Your task to perform on an android device: Go to calendar. Show me events next week Image 0: 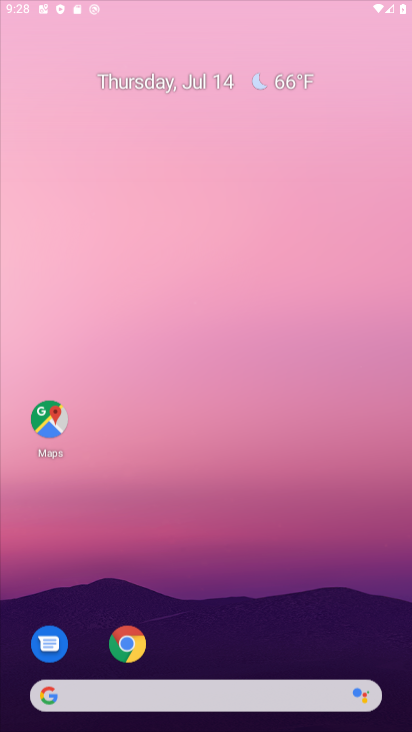
Step 0: press back button
Your task to perform on an android device: Go to calendar. Show me events next week Image 1: 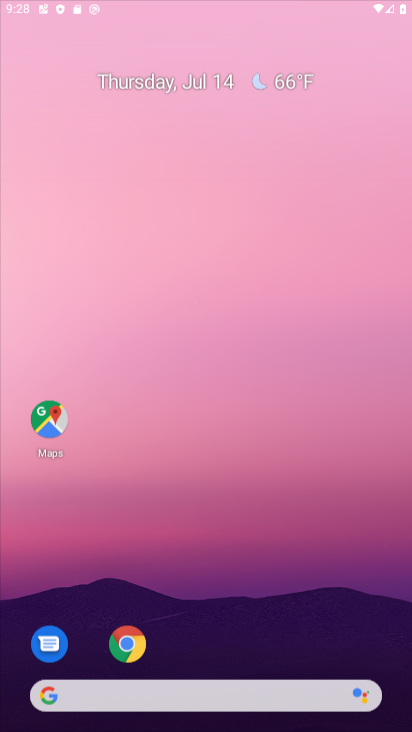
Step 1: click (202, 529)
Your task to perform on an android device: Go to calendar. Show me events next week Image 2: 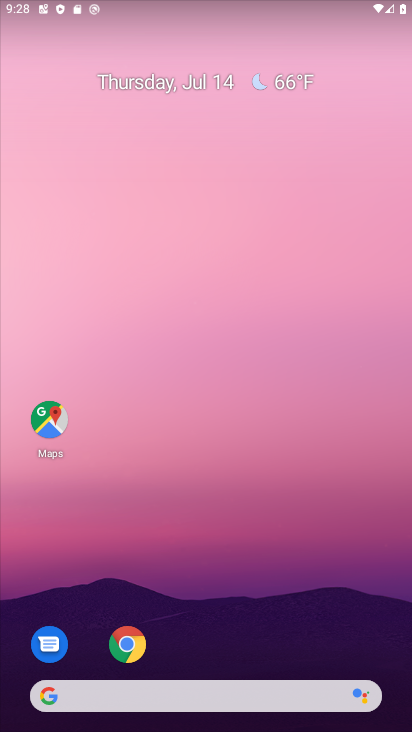
Step 2: drag from (234, 568) to (195, 182)
Your task to perform on an android device: Go to calendar. Show me events next week Image 3: 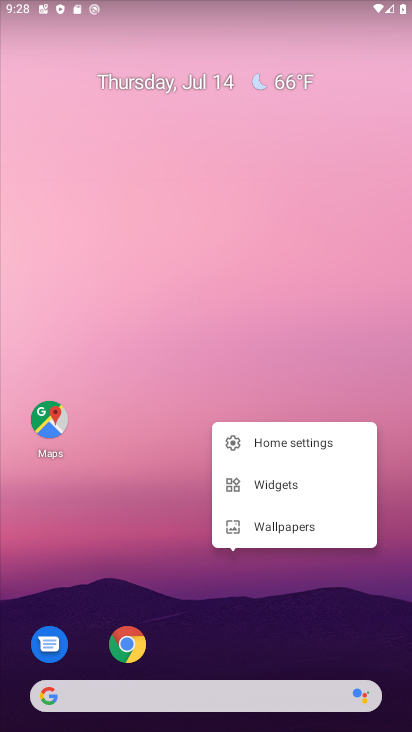
Step 3: drag from (265, 614) to (187, 302)
Your task to perform on an android device: Go to calendar. Show me events next week Image 4: 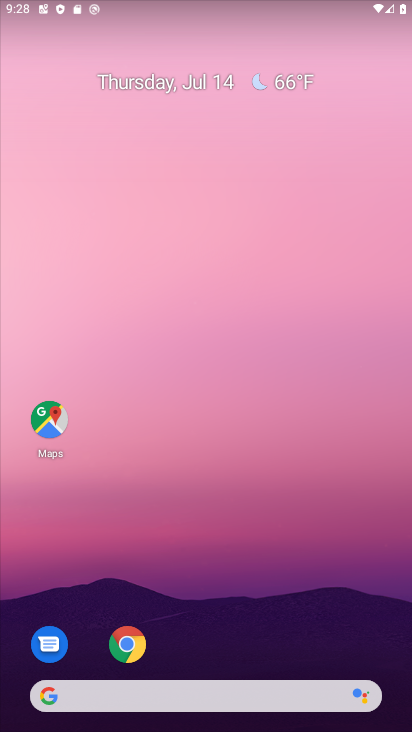
Step 4: drag from (204, 670) to (117, 204)
Your task to perform on an android device: Go to calendar. Show me events next week Image 5: 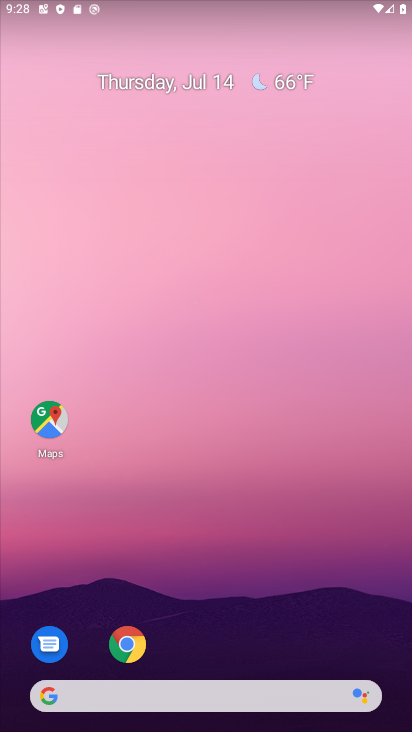
Step 5: drag from (229, 525) to (168, 64)
Your task to perform on an android device: Go to calendar. Show me events next week Image 6: 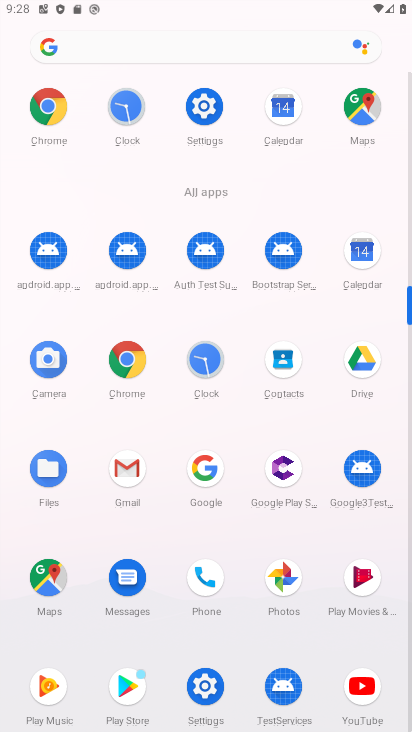
Step 6: drag from (242, 631) to (216, 97)
Your task to perform on an android device: Go to calendar. Show me events next week Image 7: 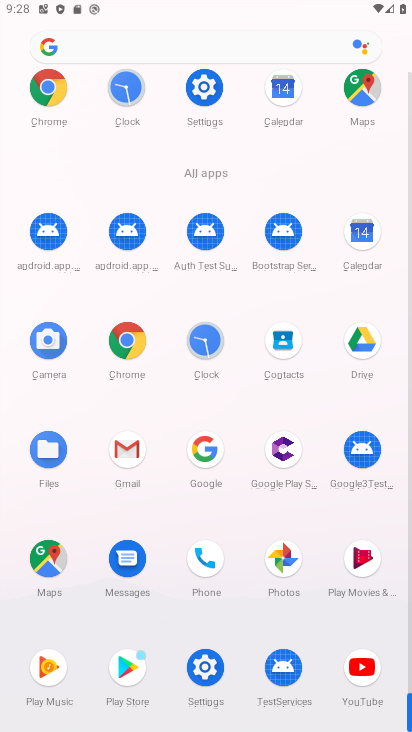
Step 7: click (365, 253)
Your task to perform on an android device: Go to calendar. Show me events next week Image 8: 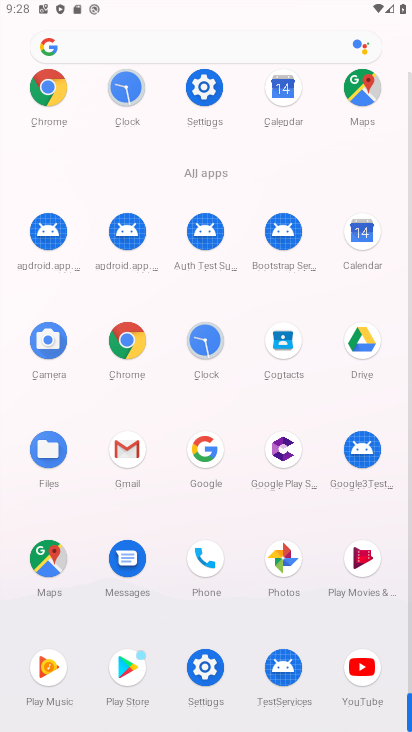
Step 8: click (364, 243)
Your task to perform on an android device: Go to calendar. Show me events next week Image 9: 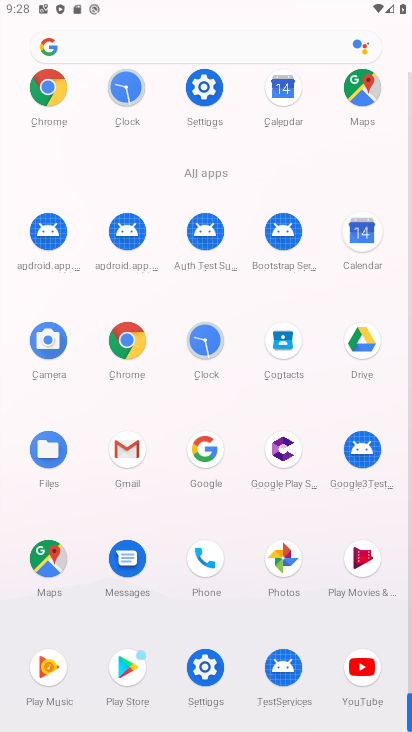
Step 9: click (366, 239)
Your task to perform on an android device: Go to calendar. Show me events next week Image 10: 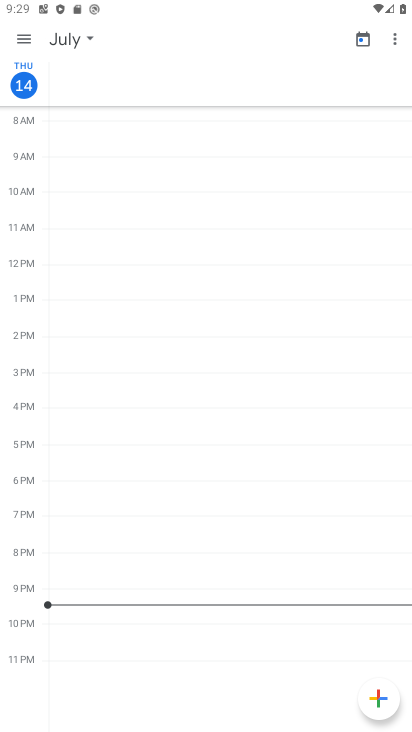
Step 10: click (85, 41)
Your task to perform on an android device: Go to calendar. Show me events next week Image 11: 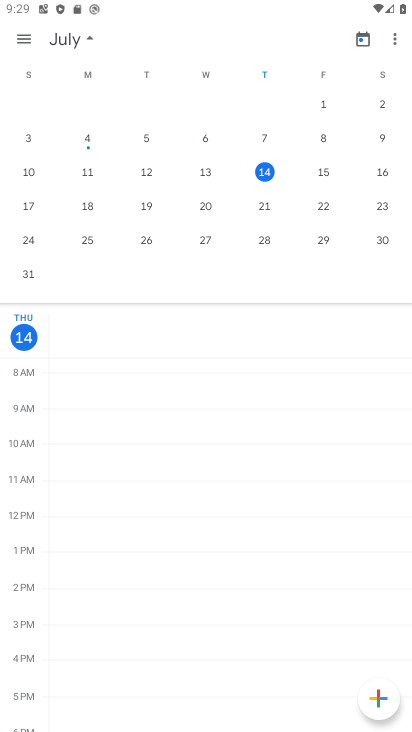
Step 11: click (328, 168)
Your task to perform on an android device: Go to calendar. Show me events next week Image 12: 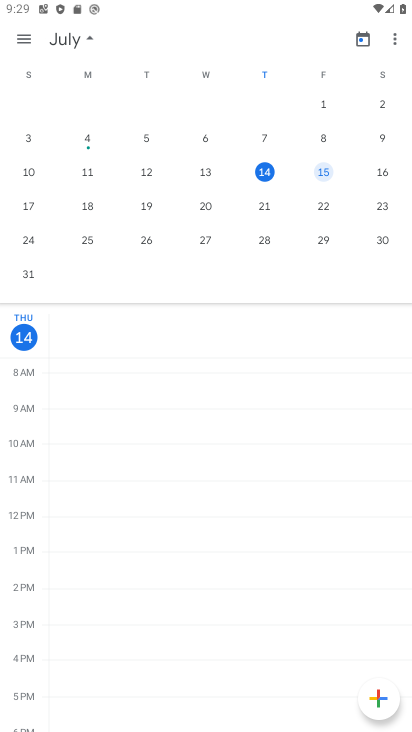
Step 12: click (335, 165)
Your task to perform on an android device: Go to calendar. Show me events next week Image 13: 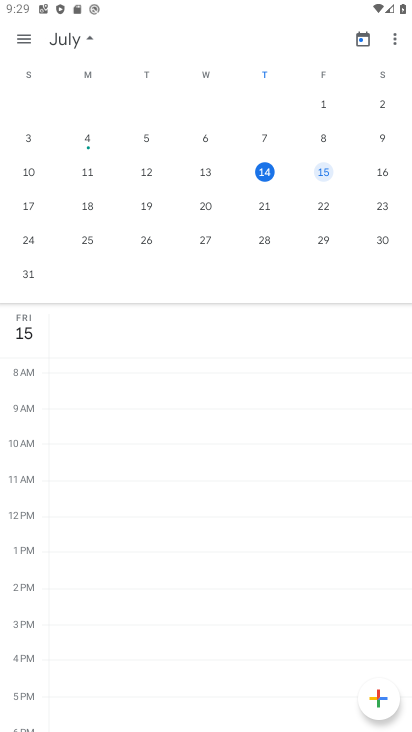
Step 13: click (382, 174)
Your task to perform on an android device: Go to calendar. Show me events next week Image 14: 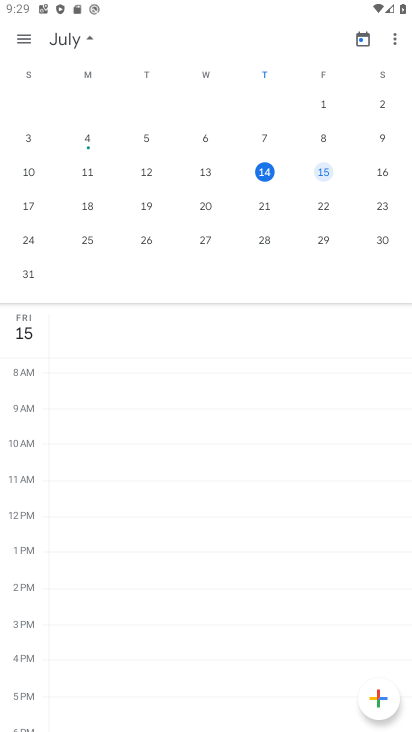
Step 14: click (382, 172)
Your task to perform on an android device: Go to calendar. Show me events next week Image 15: 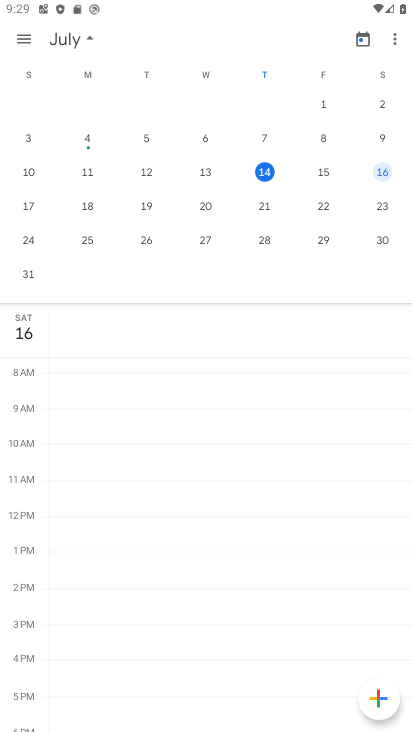
Step 15: task complete